Your task to perform on an android device: change the upload size in google photos Image 0: 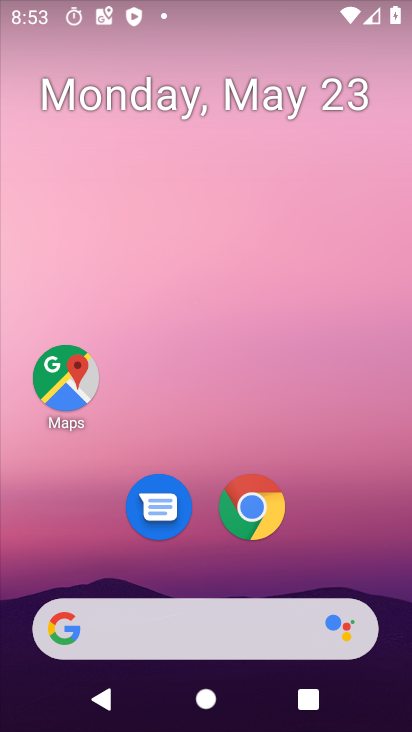
Step 0: drag from (311, 513) to (257, 74)
Your task to perform on an android device: change the upload size in google photos Image 1: 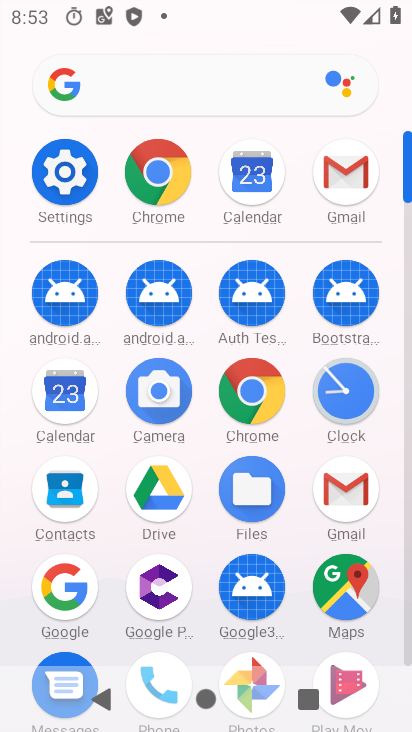
Step 1: drag from (394, 570) to (337, 224)
Your task to perform on an android device: change the upload size in google photos Image 2: 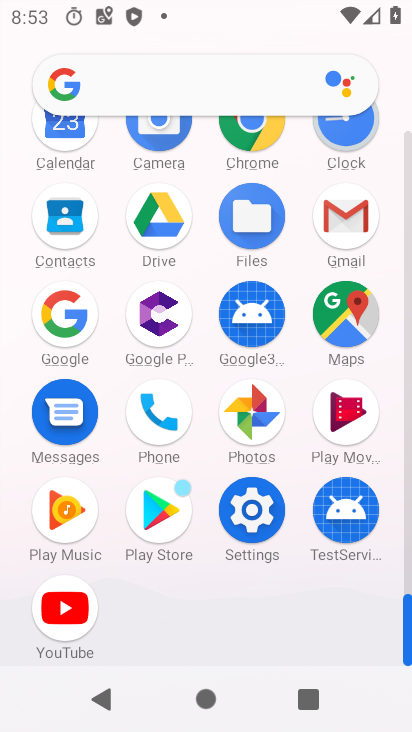
Step 2: click (240, 404)
Your task to perform on an android device: change the upload size in google photos Image 3: 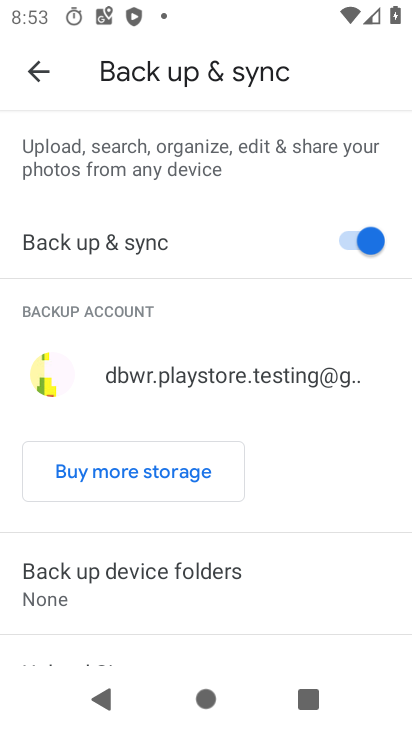
Step 3: drag from (221, 589) to (159, 213)
Your task to perform on an android device: change the upload size in google photos Image 4: 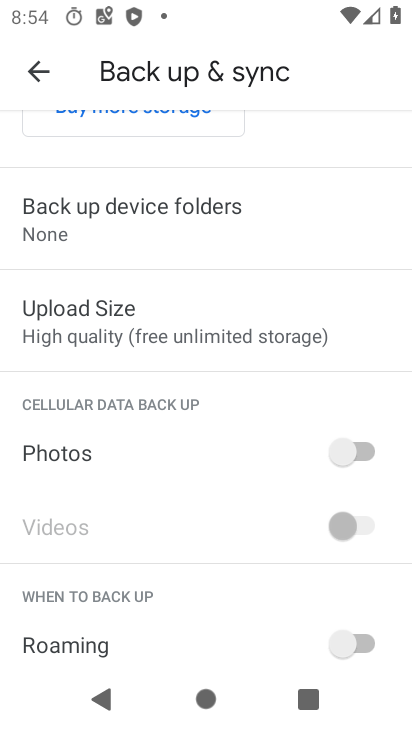
Step 4: click (90, 303)
Your task to perform on an android device: change the upload size in google photos Image 5: 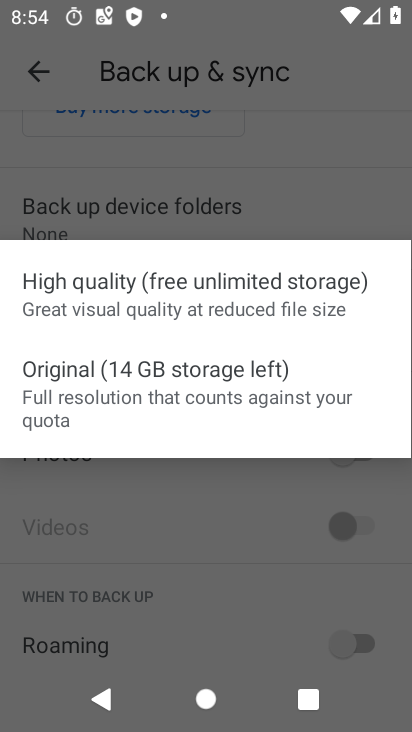
Step 5: click (70, 397)
Your task to perform on an android device: change the upload size in google photos Image 6: 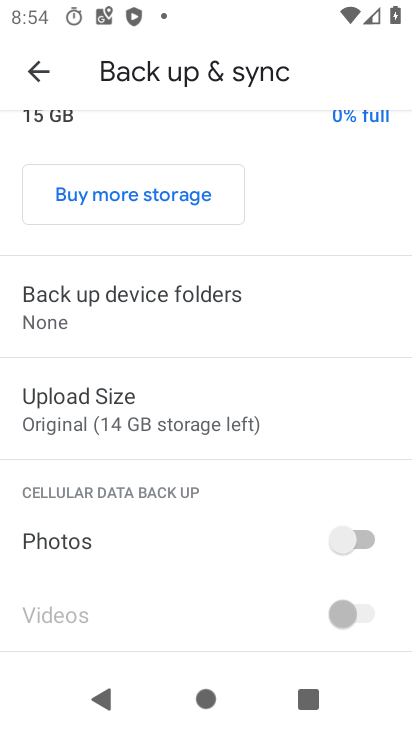
Step 6: task complete